Your task to perform on an android device: Open sound settings Image 0: 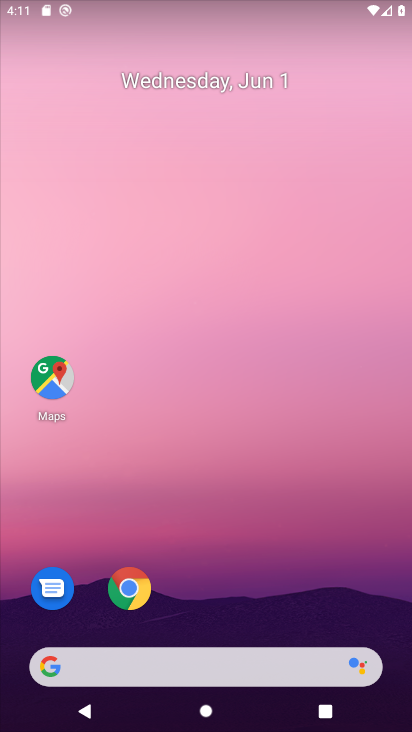
Step 0: drag from (272, 579) to (206, 212)
Your task to perform on an android device: Open sound settings Image 1: 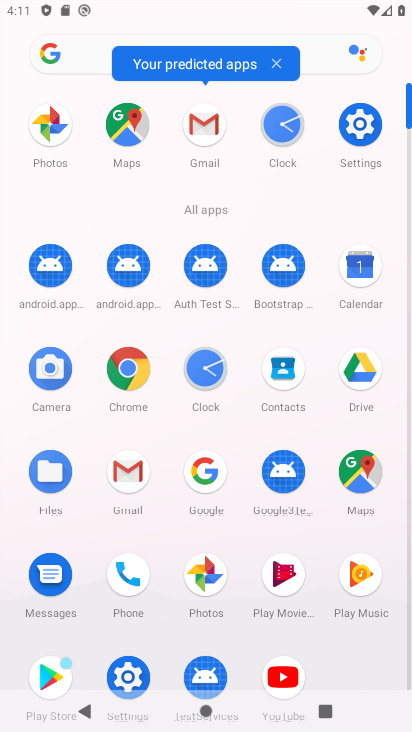
Step 1: click (359, 121)
Your task to perform on an android device: Open sound settings Image 2: 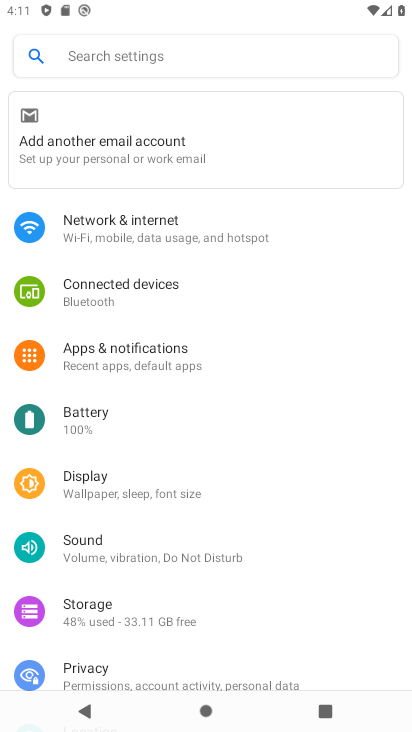
Step 2: drag from (112, 517) to (158, 425)
Your task to perform on an android device: Open sound settings Image 3: 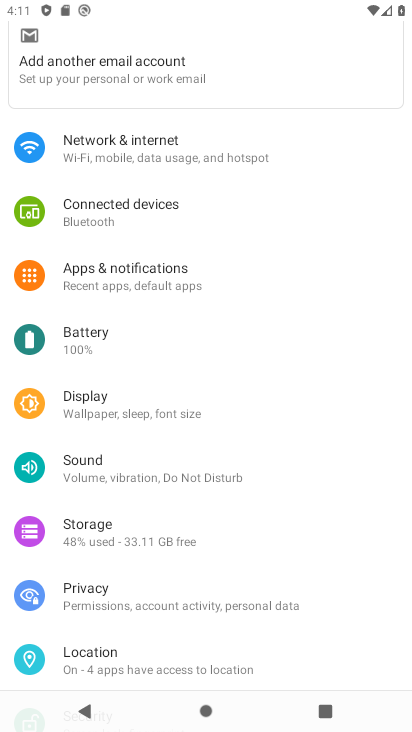
Step 3: click (132, 468)
Your task to perform on an android device: Open sound settings Image 4: 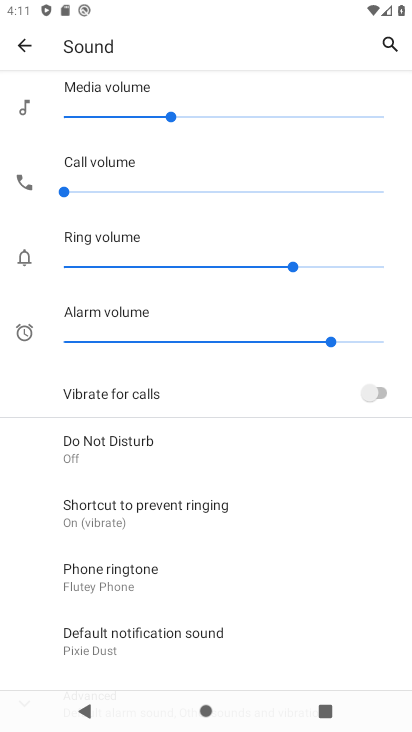
Step 4: task complete